Your task to perform on an android device: set the timer Image 0: 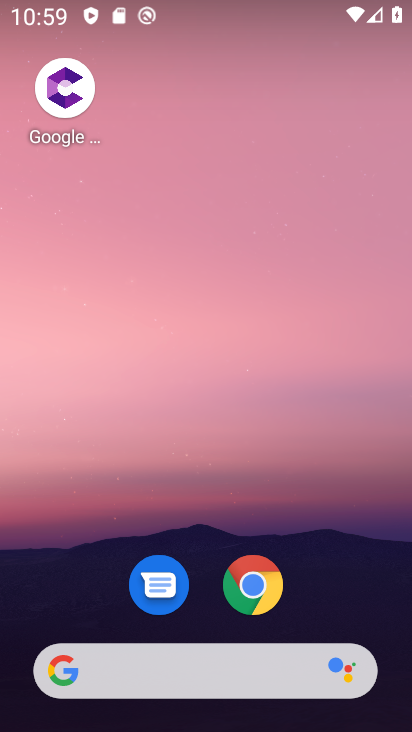
Step 0: drag from (166, 633) to (244, 171)
Your task to perform on an android device: set the timer Image 1: 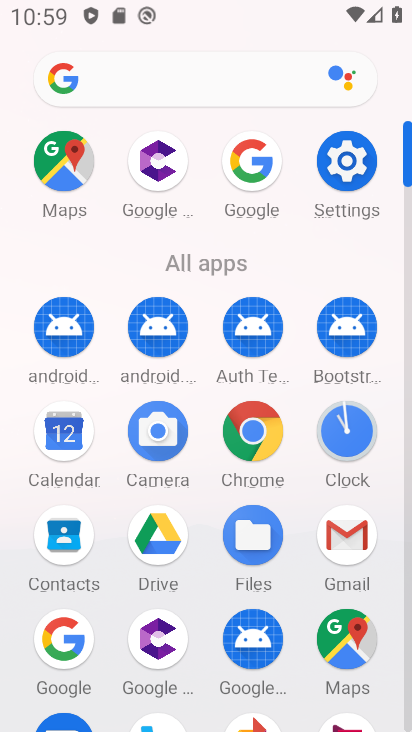
Step 1: click (344, 429)
Your task to perform on an android device: set the timer Image 2: 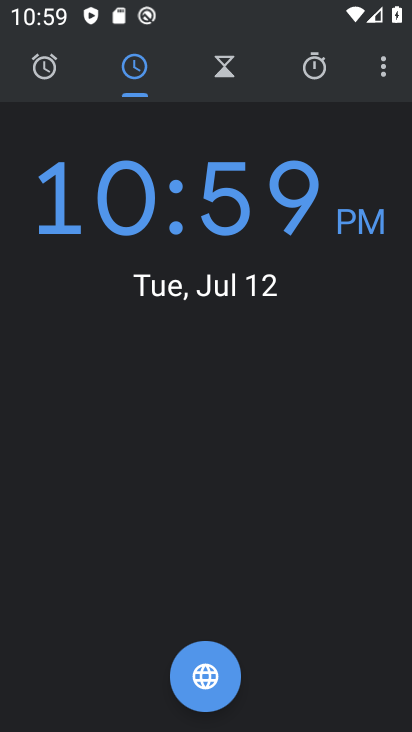
Step 2: click (229, 83)
Your task to perform on an android device: set the timer Image 3: 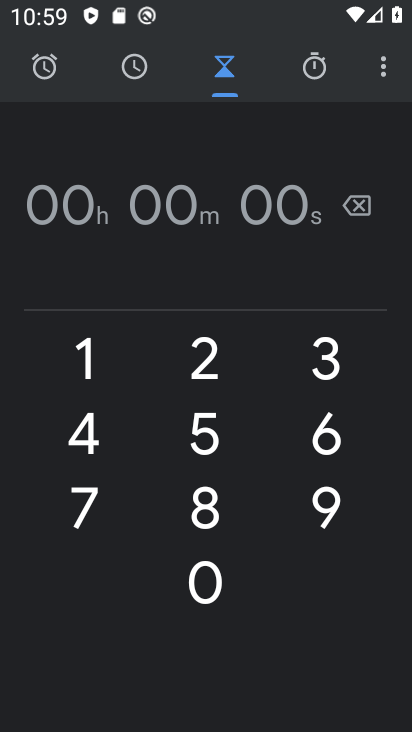
Step 3: click (208, 436)
Your task to perform on an android device: set the timer Image 4: 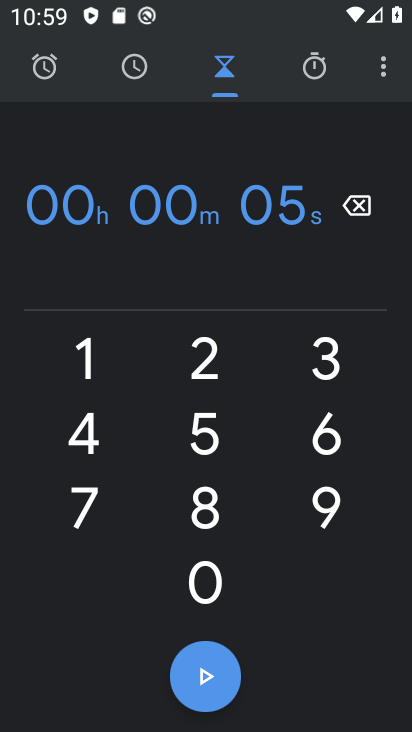
Step 4: click (208, 525)
Your task to perform on an android device: set the timer Image 5: 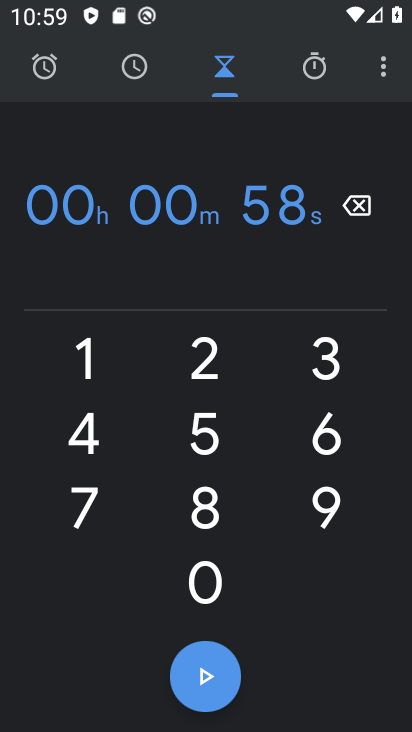
Step 5: click (78, 482)
Your task to perform on an android device: set the timer Image 6: 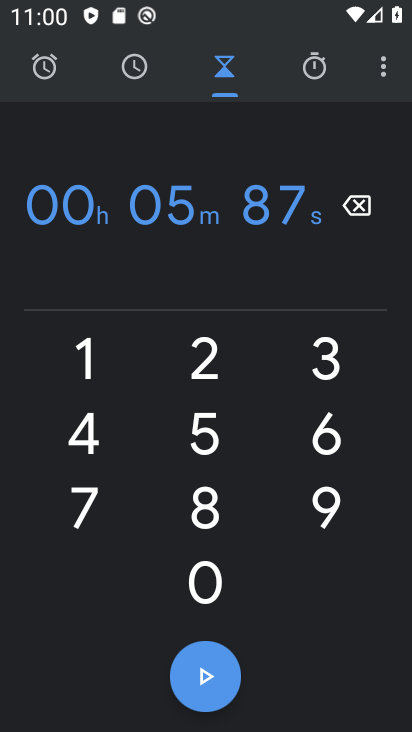
Step 6: click (78, 450)
Your task to perform on an android device: set the timer Image 7: 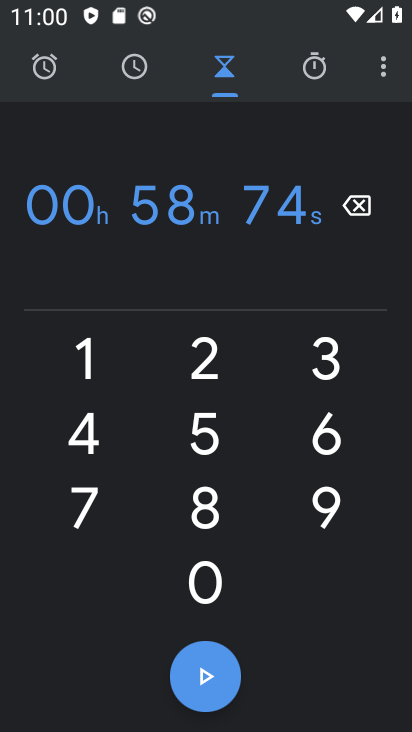
Step 7: click (195, 687)
Your task to perform on an android device: set the timer Image 8: 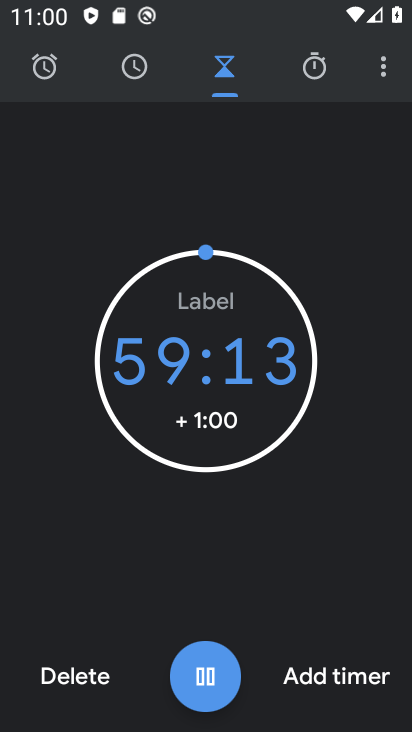
Step 8: task complete